Your task to perform on an android device: Search for "razer deathadder" on ebay.com, select the first entry, and add it to the cart. Image 0: 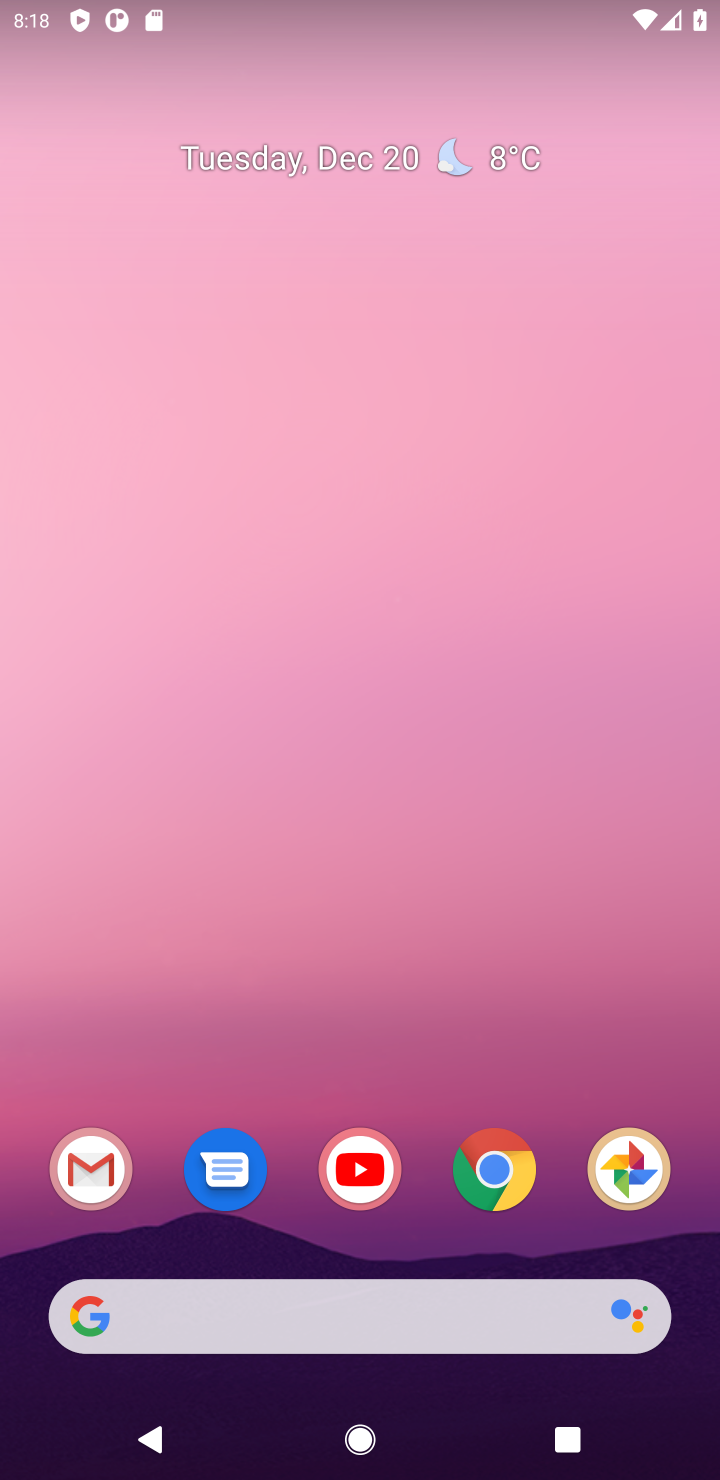
Step 0: click (504, 1166)
Your task to perform on an android device: Search for "razer deathadder" on ebay.com, select the first entry, and add it to the cart. Image 1: 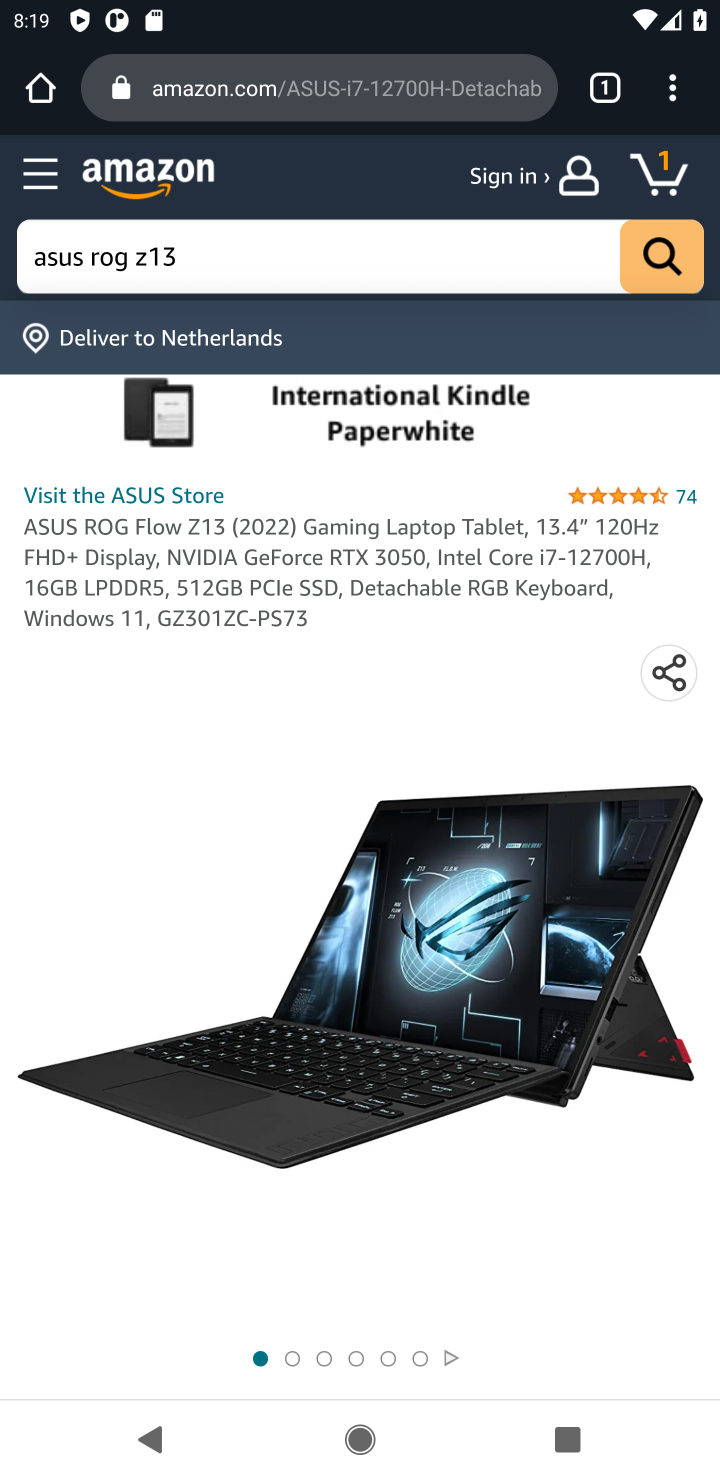
Step 1: click (286, 77)
Your task to perform on an android device: Search for "razer deathadder" on ebay.com, select the first entry, and add it to the cart. Image 2: 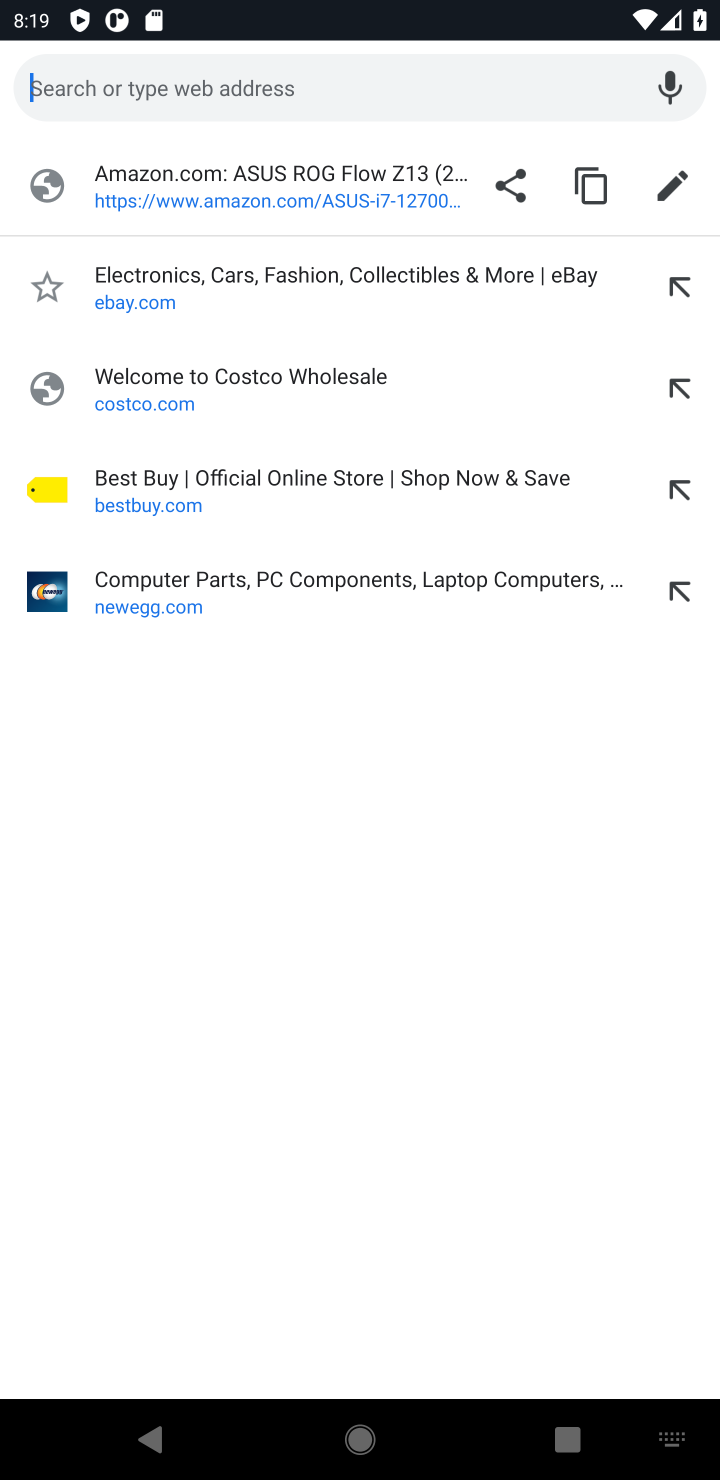
Step 2: click (163, 284)
Your task to perform on an android device: Search for "razer deathadder" on ebay.com, select the first entry, and add it to the cart. Image 3: 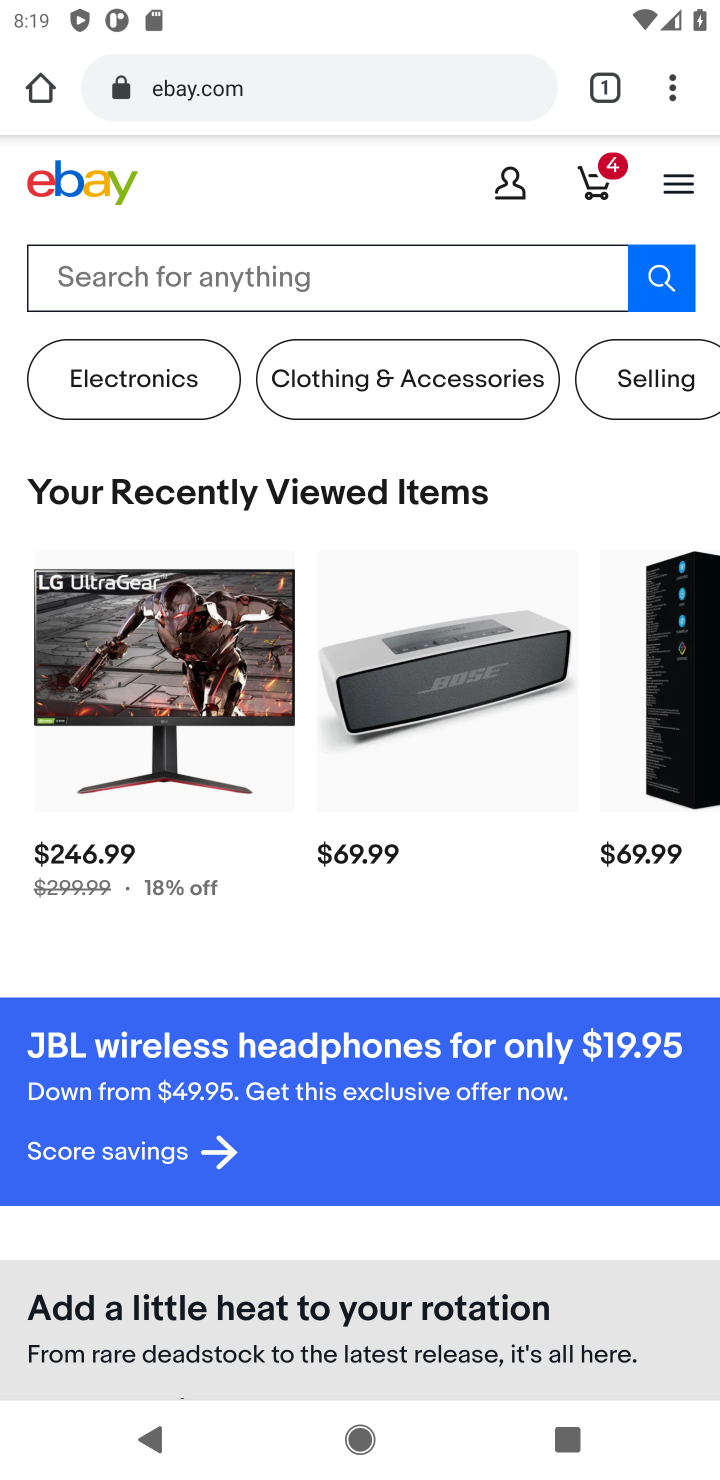
Step 3: click (416, 272)
Your task to perform on an android device: Search for "razer deathadder" on ebay.com, select the first entry, and add it to the cart. Image 4: 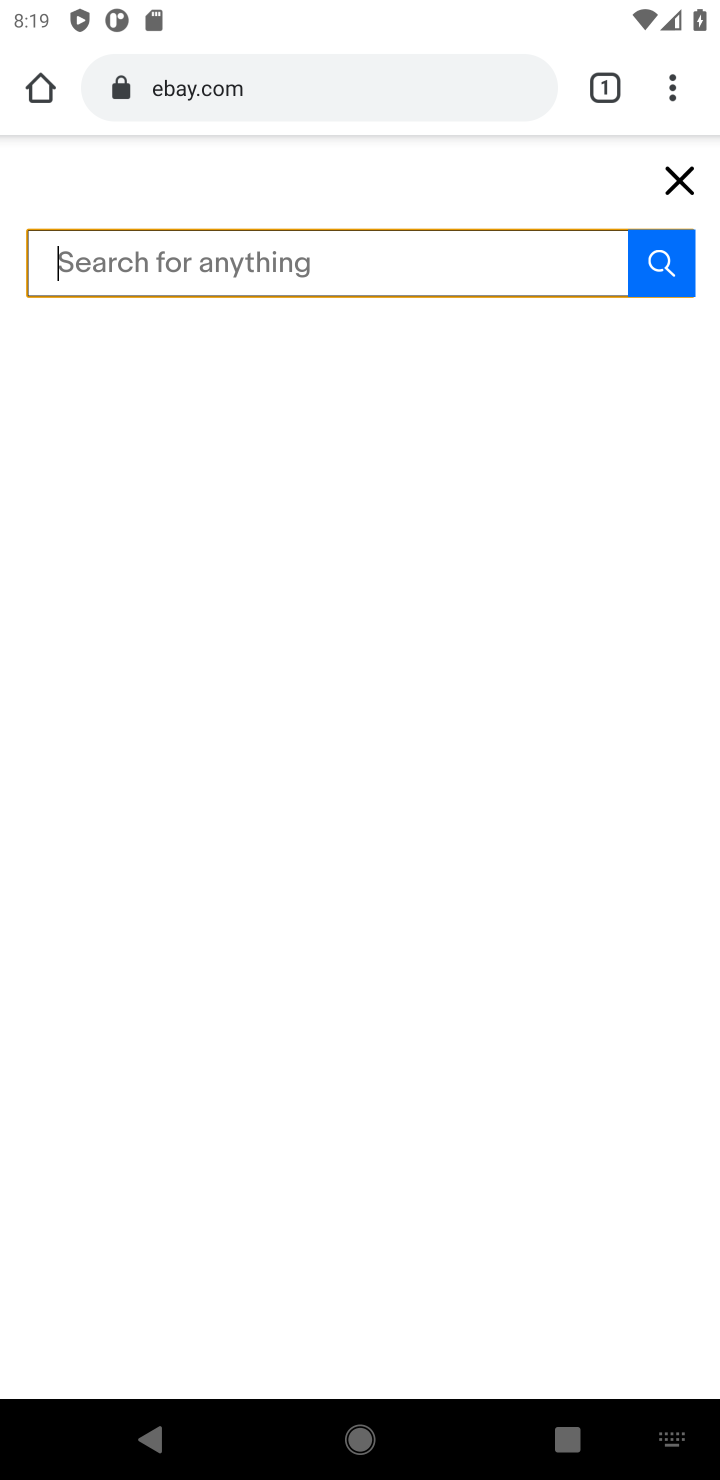
Step 4: type "razer deathadder'"
Your task to perform on an android device: Search for "razer deathadder" on ebay.com, select the first entry, and add it to the cart. Image 5: 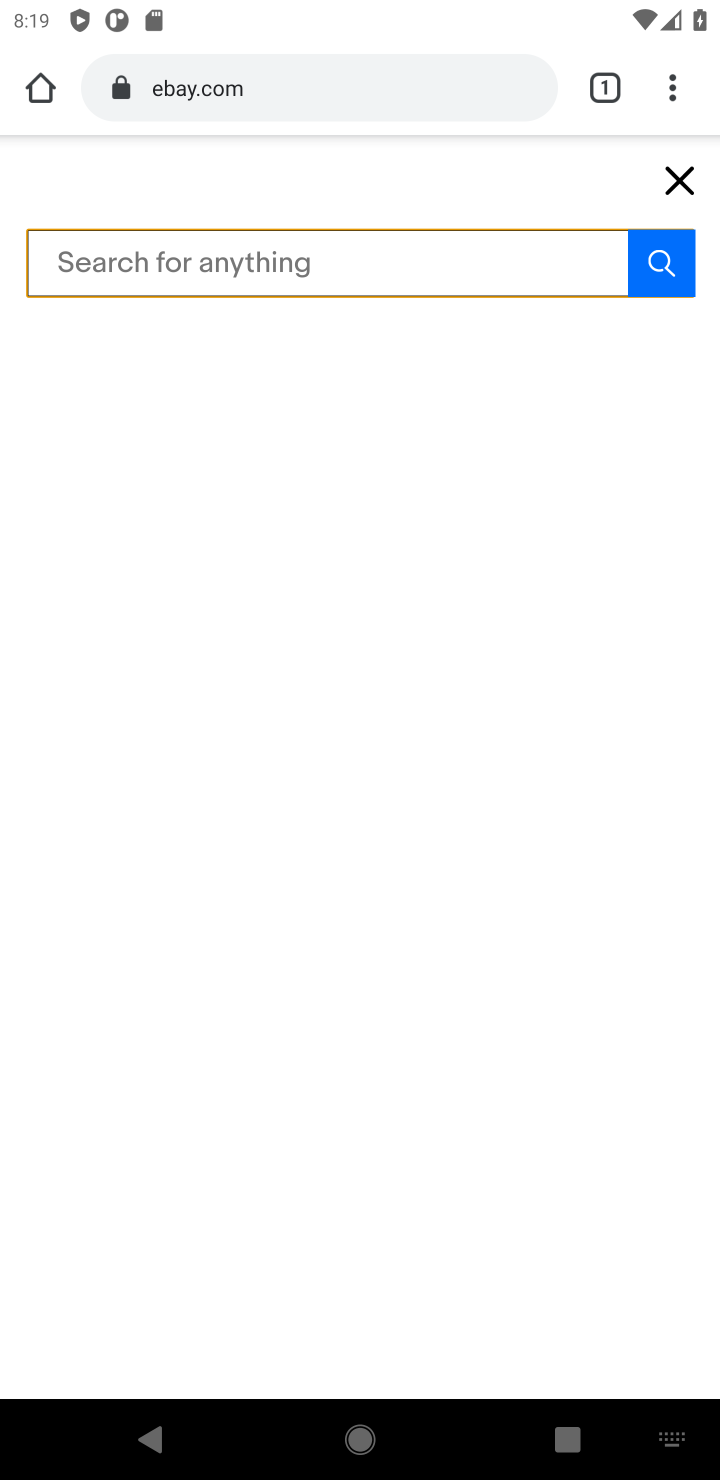
Step 5: click (420, 255)
Your task to perform on an android device: Search for "razer deathadder" on ebay.com, select the first entry, and add it to the cart. Image 6: 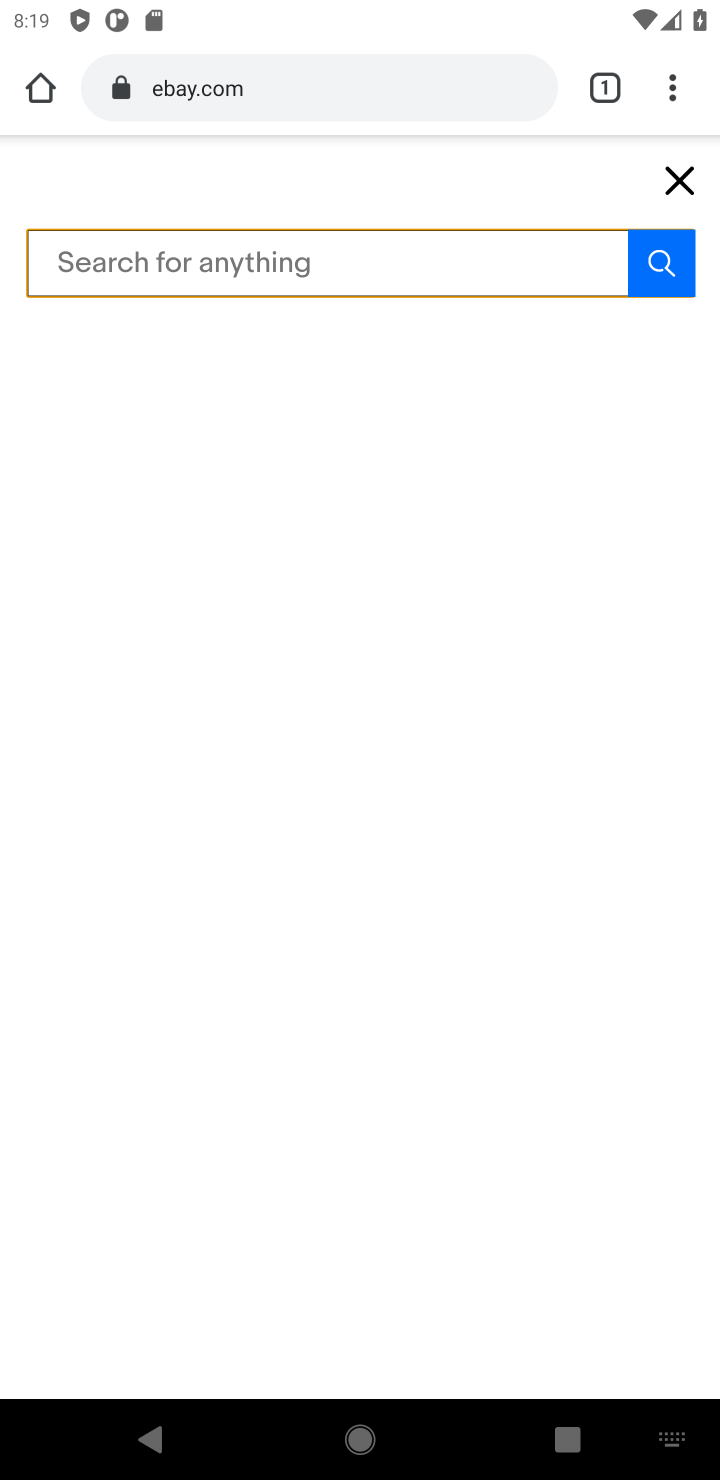
Step 6: type "razer deathadder"
Your task to perform on an android device: Search for "razer deathadder" on ebay.com, select the first entry, and add it to the cart. Image 7: 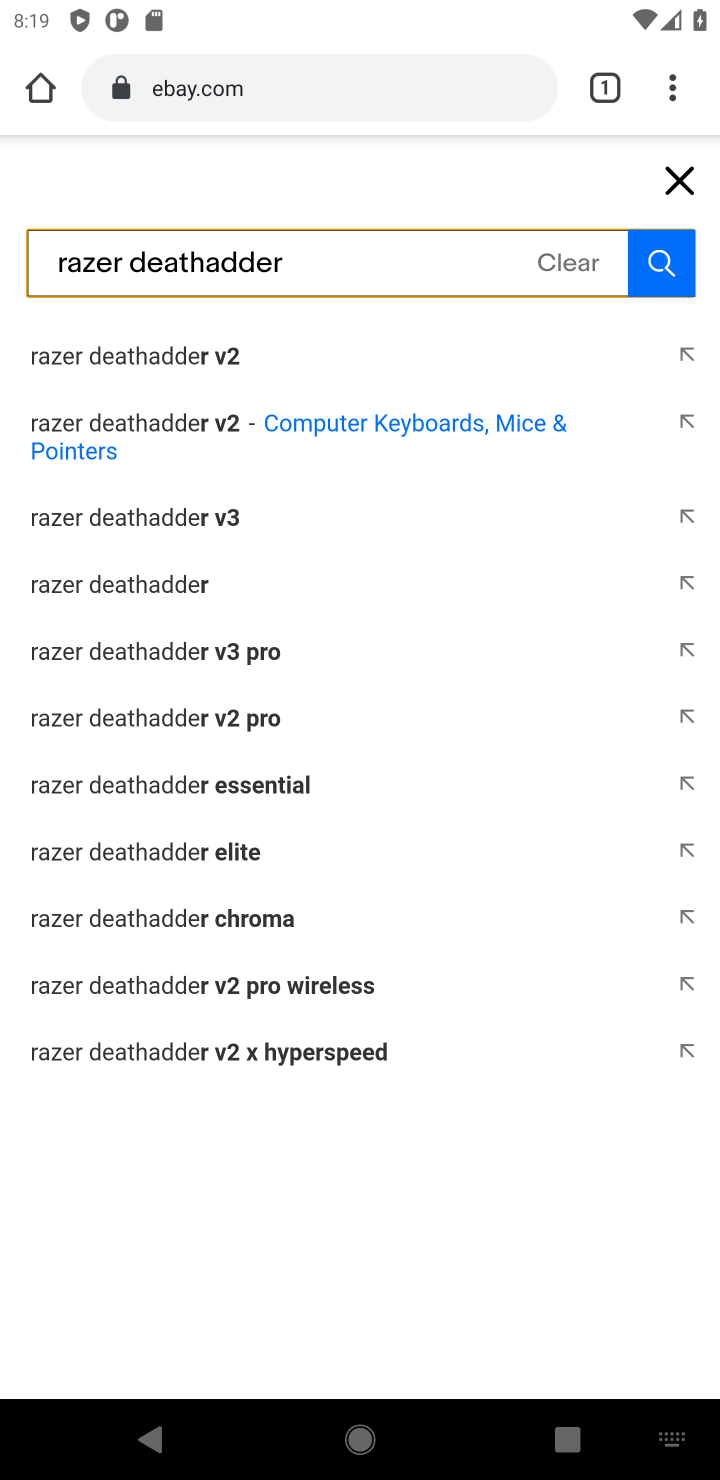
Step 7: click (665, 271)
Your task to perform on an android device: Search for "razer deathadder" on ebay.com, select the first entry, and add it to the cart. Image 8: 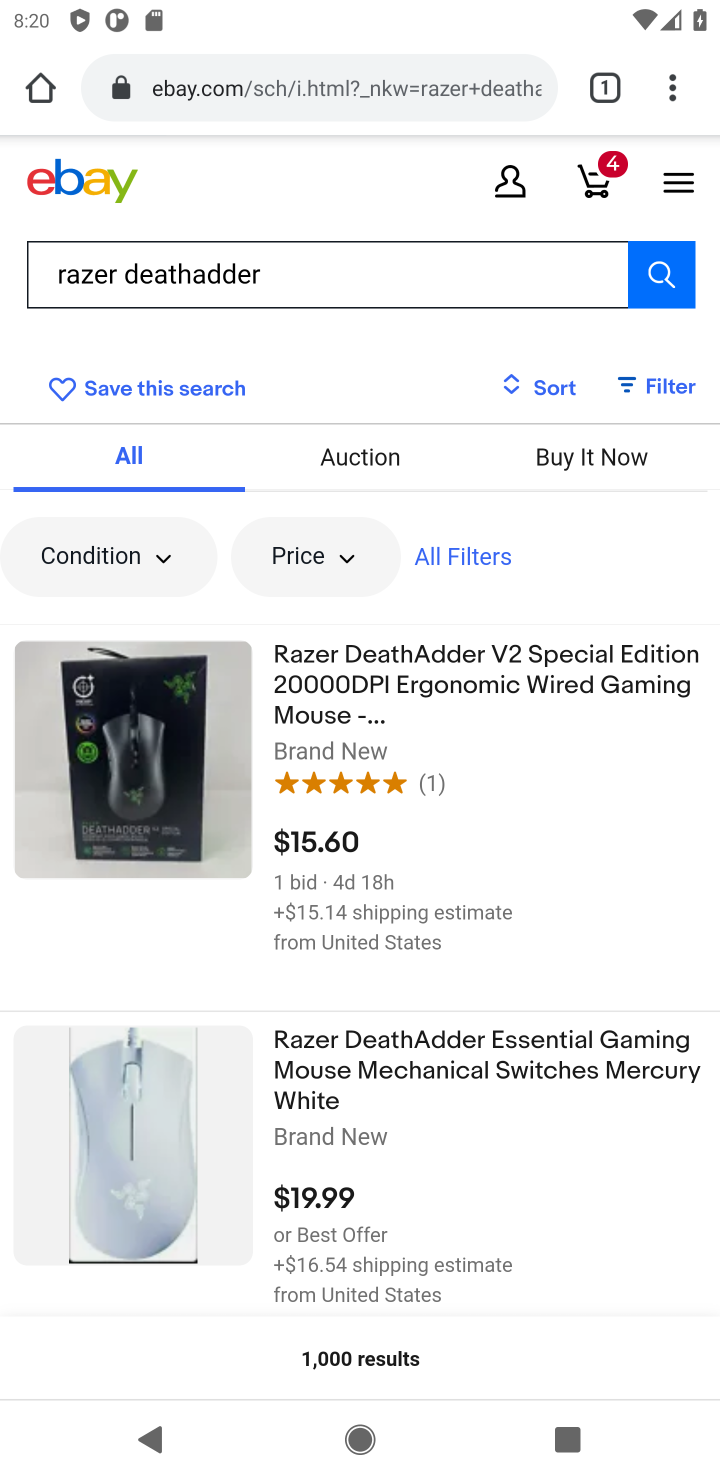
Step 8: click (337, 690)
Your task to perform on an android device: Search for "razer deathadder" on ebay.com, select the first entry, and add it to the cart. Image 9: 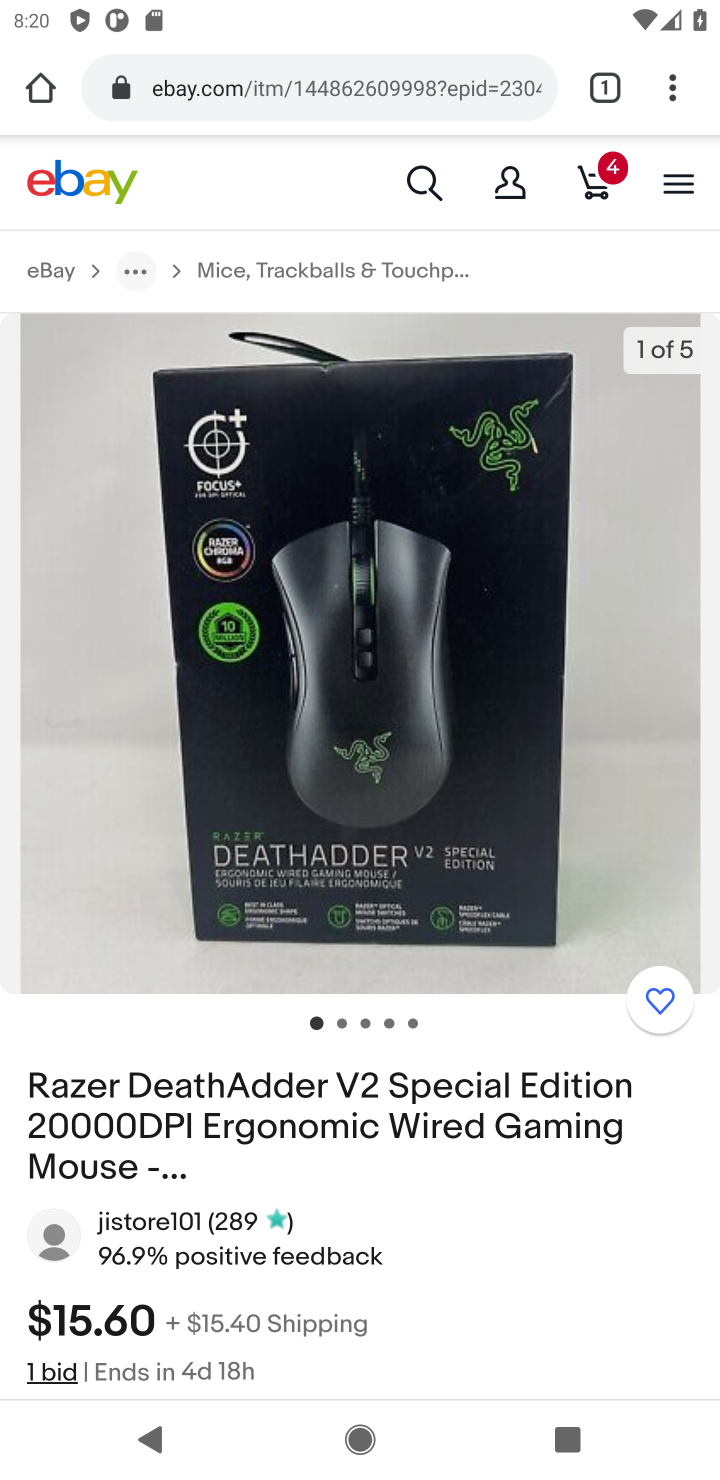
Step 9: task complete